Your task to perform on an android device: turn on javascript in the chrome app Image 0: 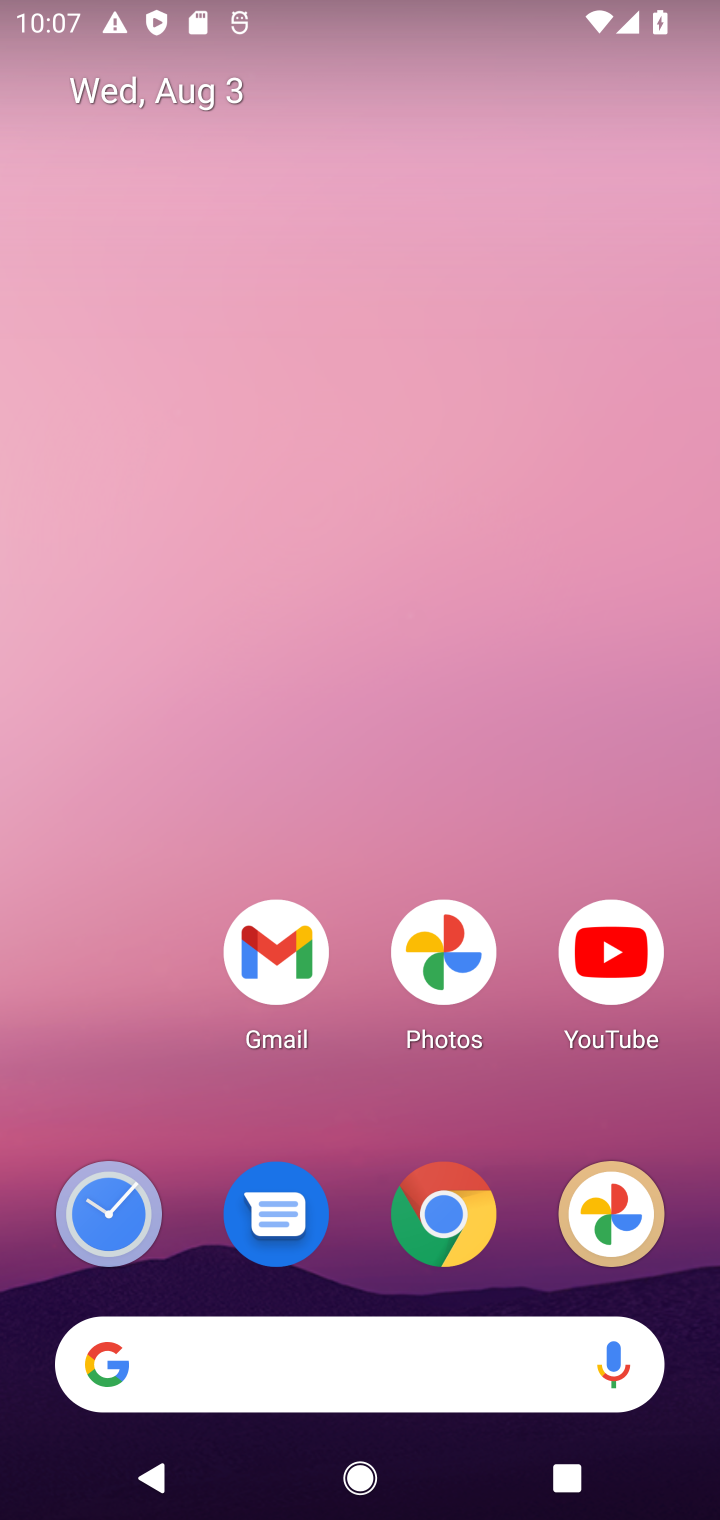
Step 0: click (444, 1206)
Your task to perform on an android device: turn on javascript in the chrome app Image 1: 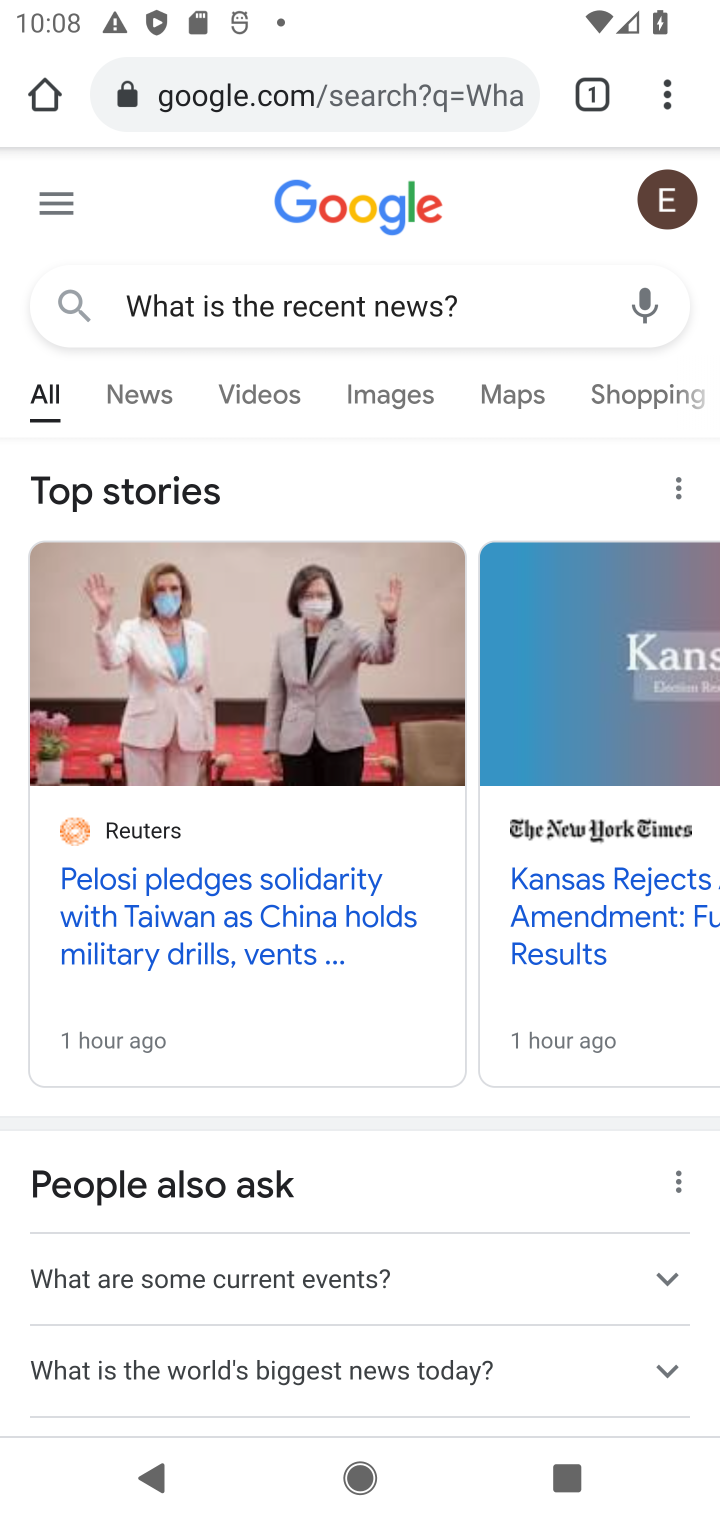
Step 1: click (655, 85)
Your task to perform on an android device: turn on javascript in the chrome app Image 2: 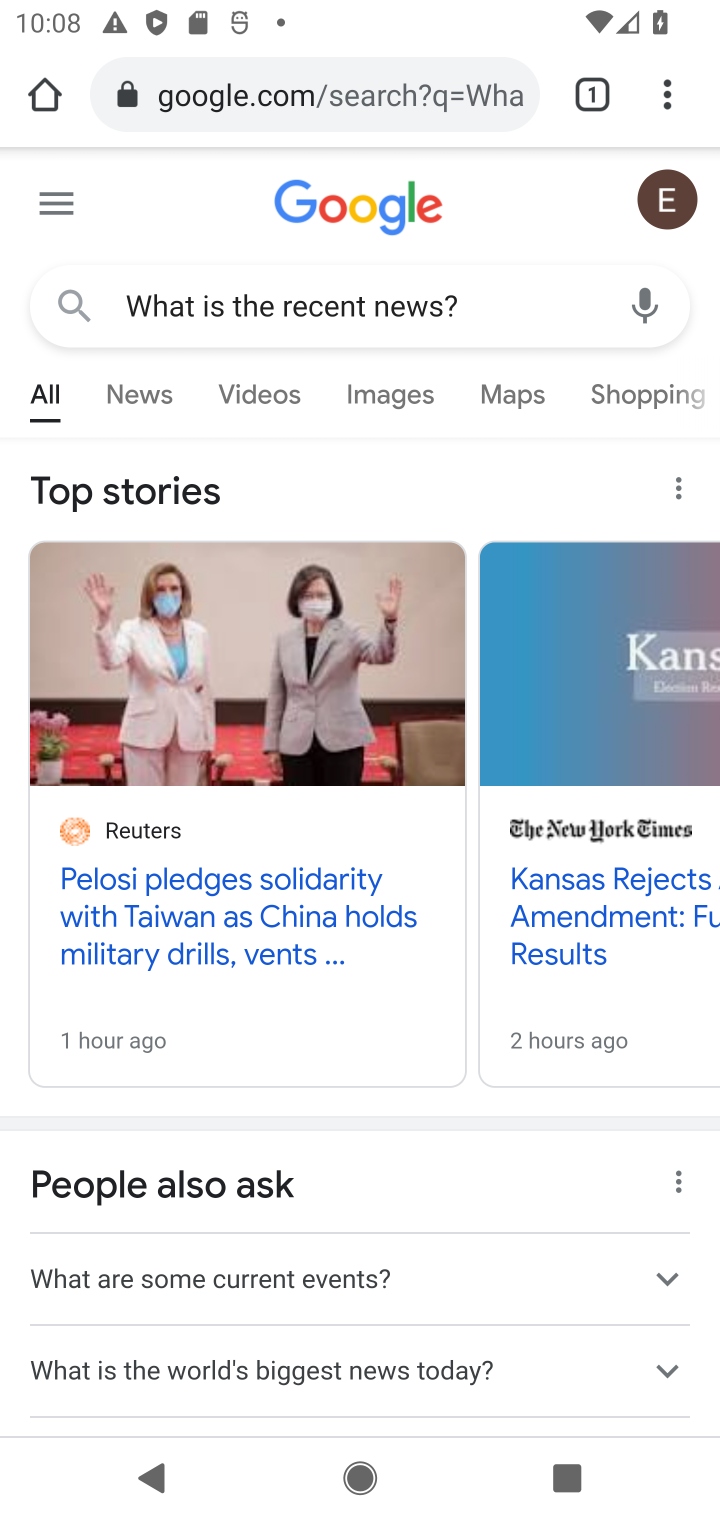
Step 2: drag from (666, 94) to (444, 1198)
Your task to perform on an android device: turn on javascript in the chrome app Image 3: 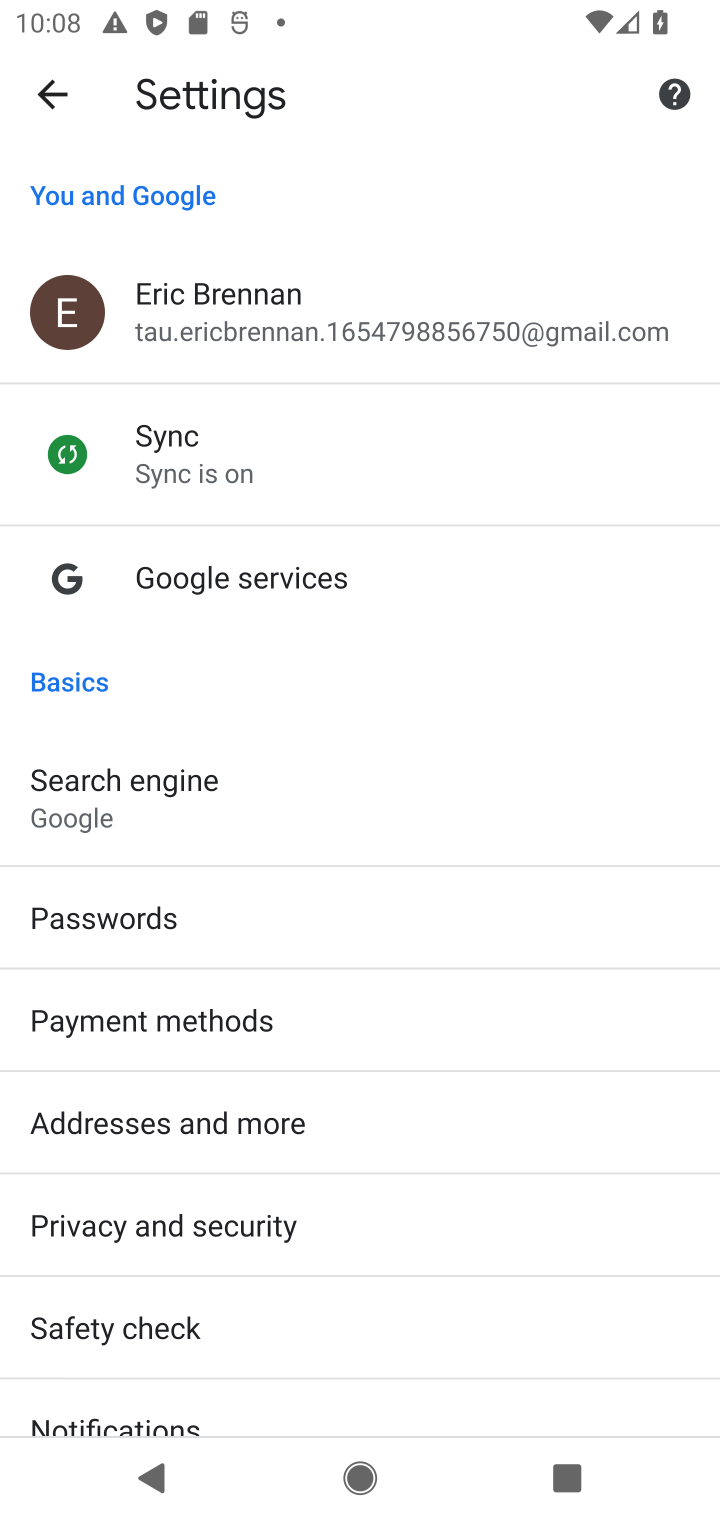
Step 3: drag from (355, 1263) to (419, 682)
Your task to perform on an android device: turn on javascript in the chrome app Image 4: 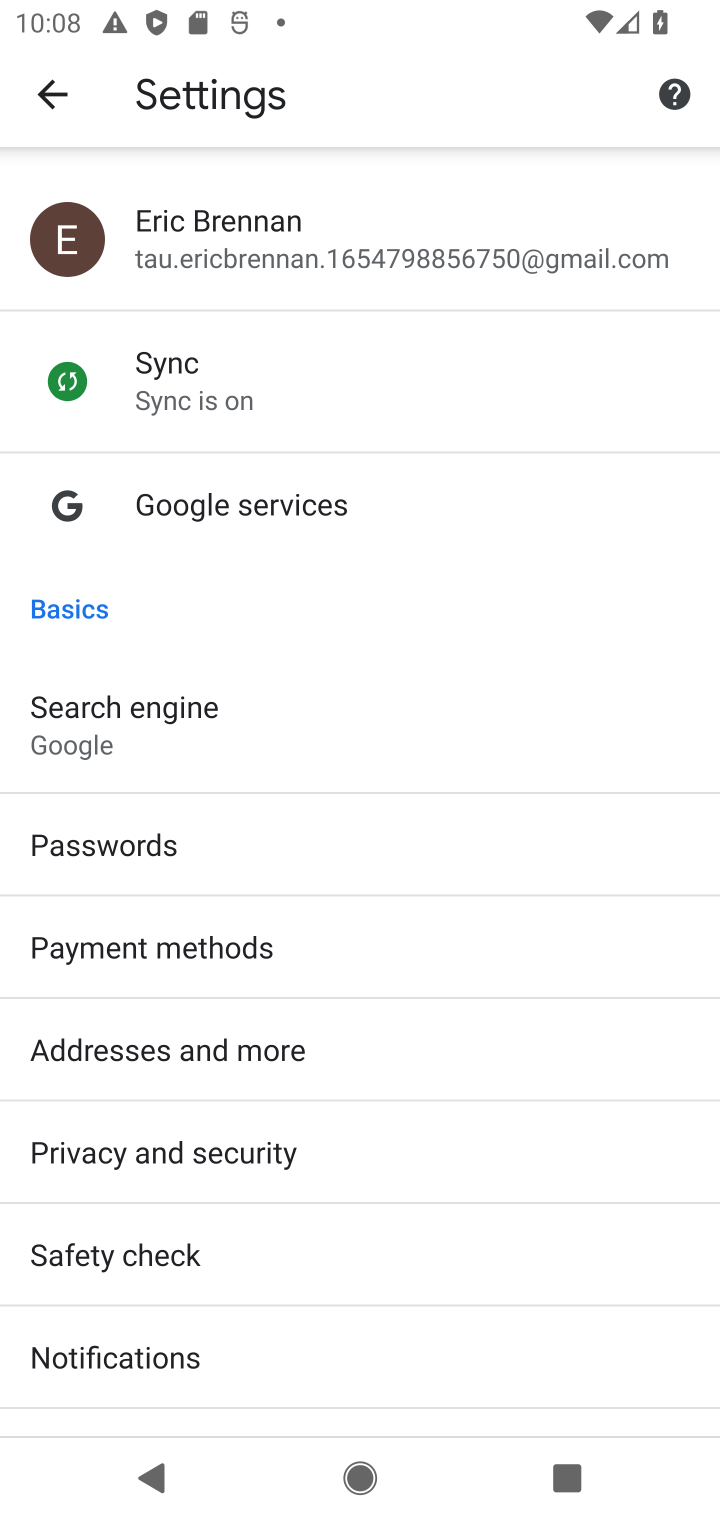
Step 4: drag from (365, 1294) to (455, 447)
Your task to perform on an android device: turn on javascript in the chrome app Image 5: 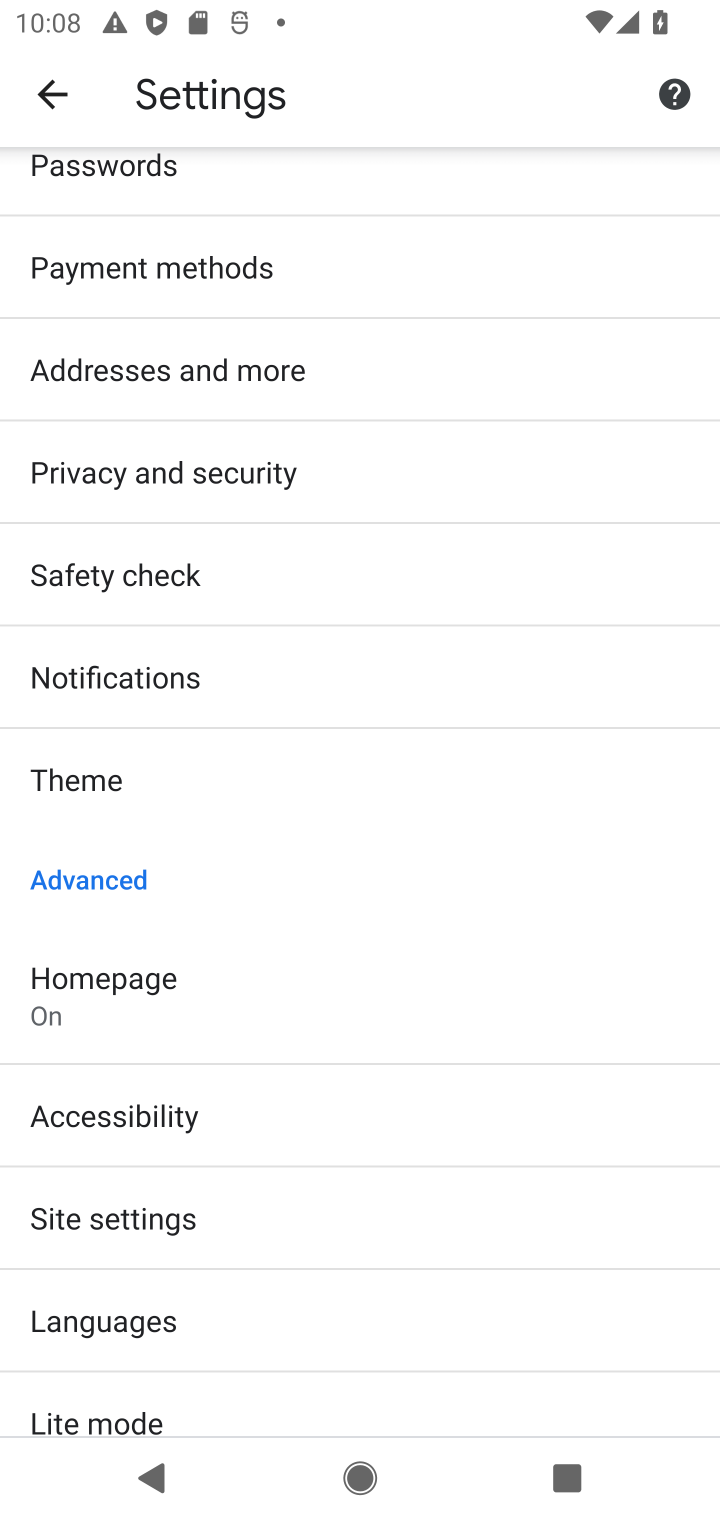
Step 5: click (312, 1185)
Your task to perform on an android device: turn on javascript in the chrome app Image 6: 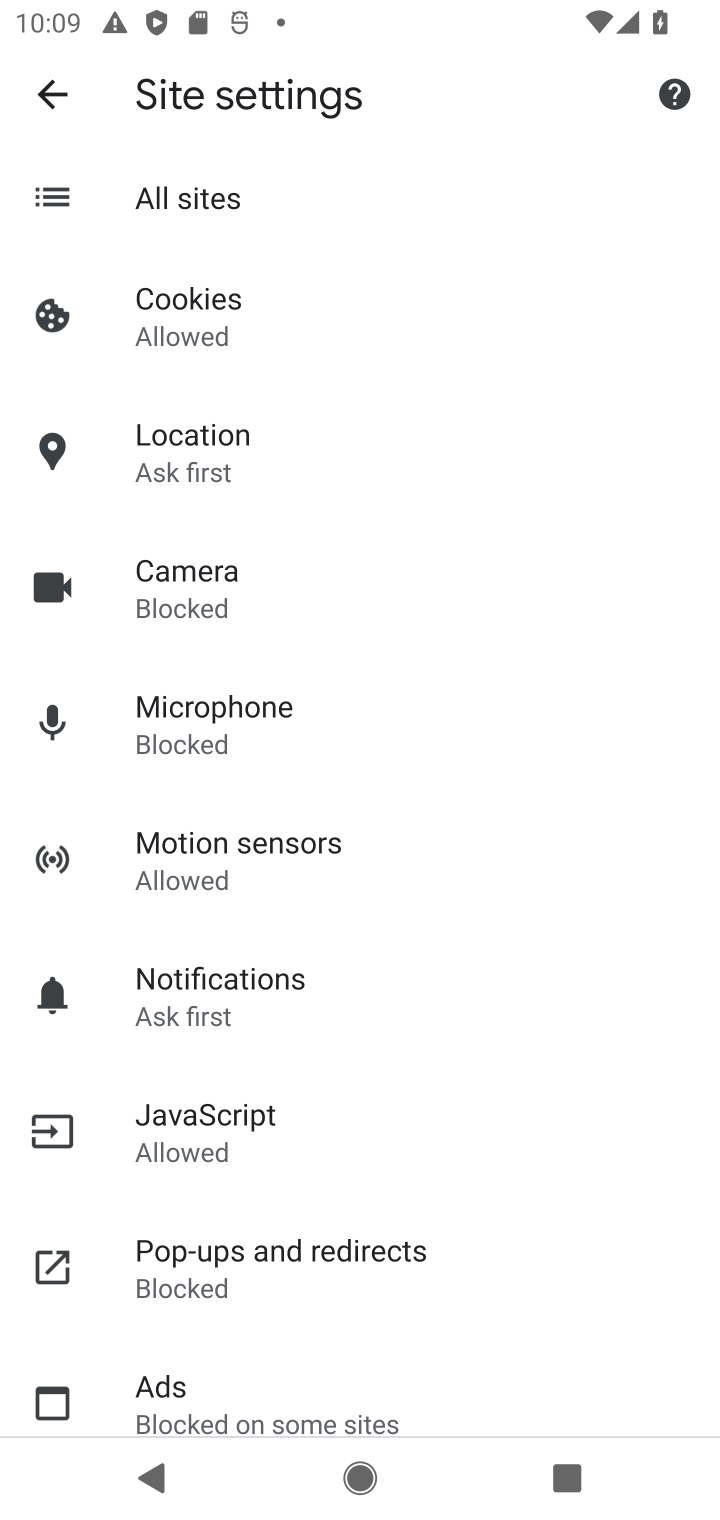
Step 6: click (192, 1148)
Your task to perform on an android device: turn on javascript in the chrome app Image 7: 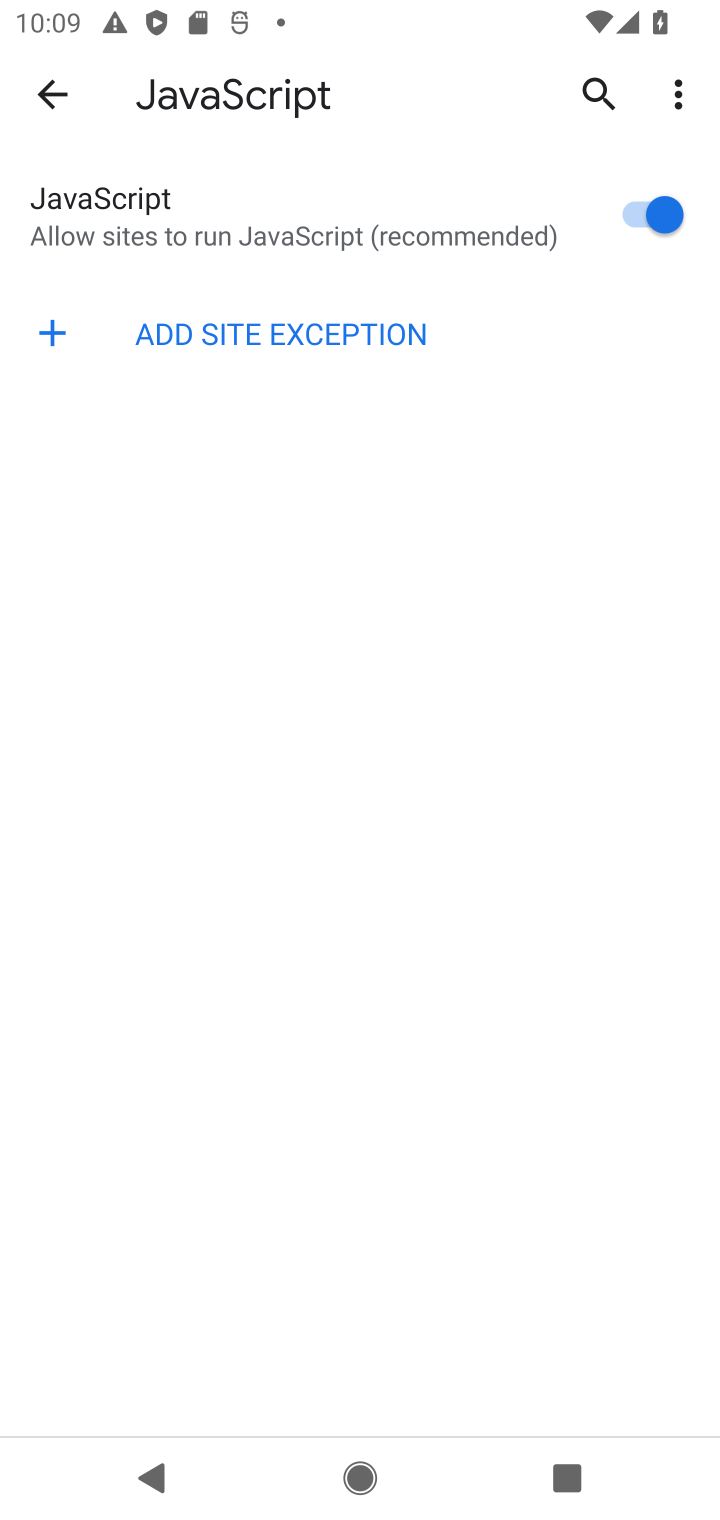
Step 7: task complete